Your task to perform on an android device: set the stopwatch Image 0: 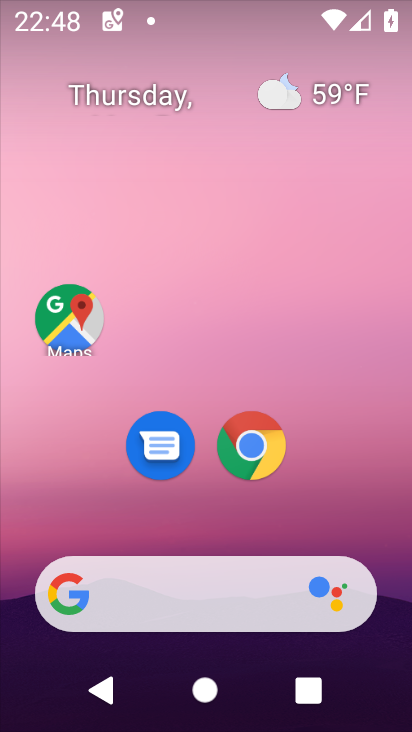
Step 0: drag from (211, 578) to (169, 104)
Your task to perform on an android device: set the stopwatch Image 1: 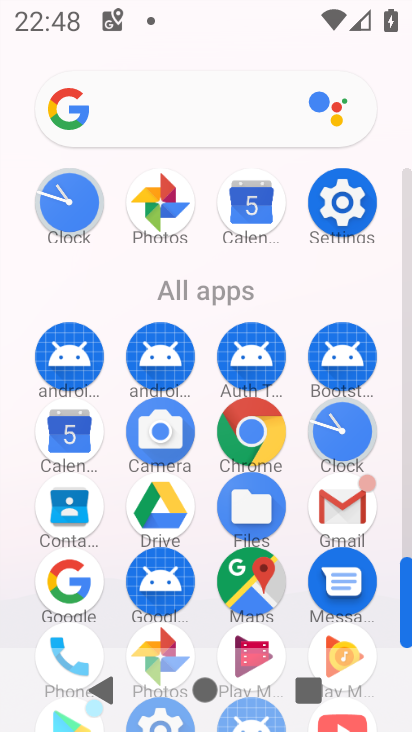
Step 1: click (348, 432)
Your task to perform on an android device: set the stopwatch Image 2: 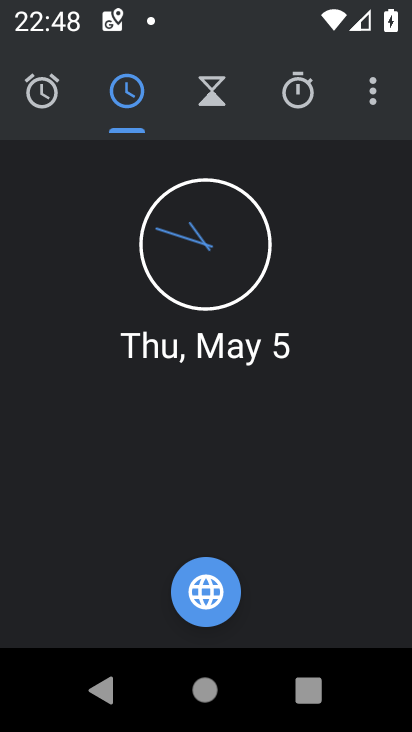
Step 2: click (47, 98)
Your task to perform on an android device: set the stopwatch Image 3: 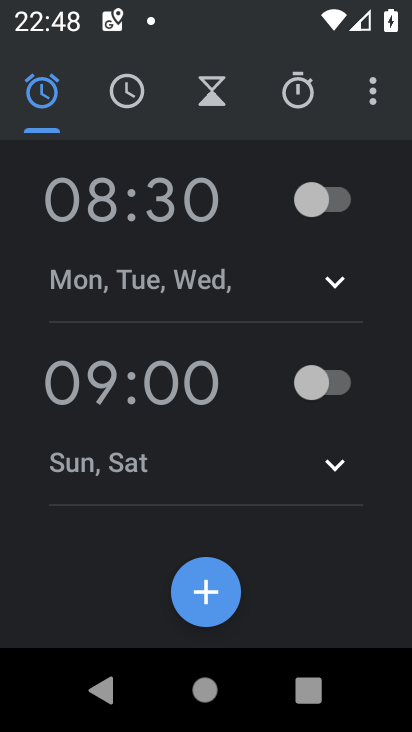
Step 3: click (288, 106)
Your task to perform on an android device: set the stopwatch Image 4: 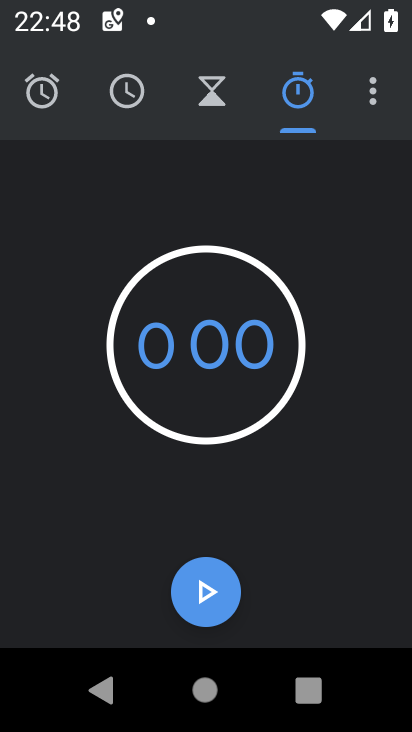
Step 4: click (224, 585)
Your task to perform on an android device: set the stopwatch Image 5: 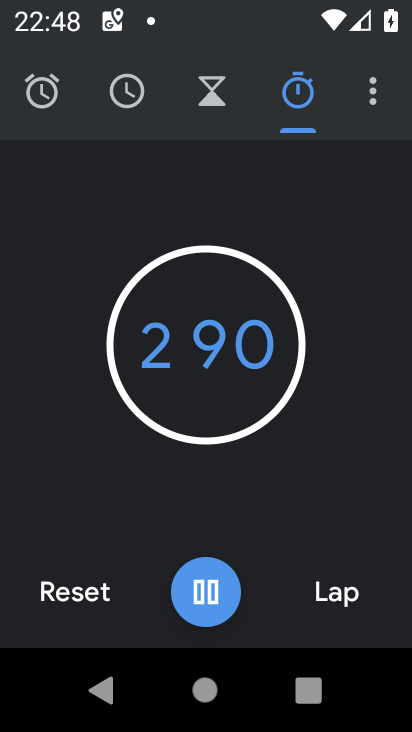
Step 5: task complete